Your task to perform on an android device: turn on sleep mode Image 0: 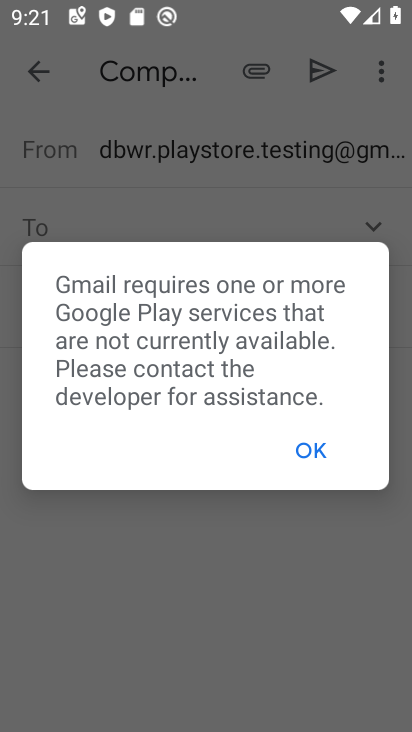
Step 0: press home button
Your task to perform on an android device: turn on sleep mode Image 1: 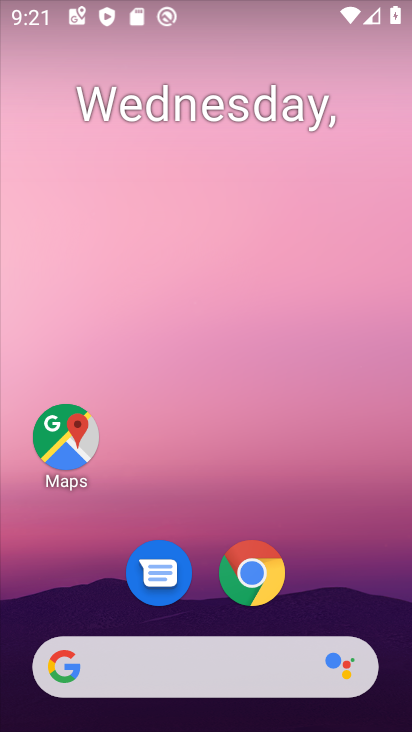
Step 1: drag from (364, 618) to (372, 239)
Your task to perform on an android device: turn on sleep mode Image 2: 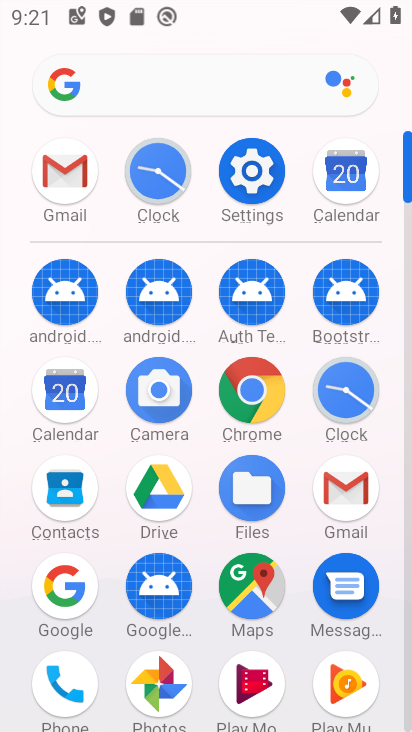
Step 2: click (243, 162)
Your task to perform on an android device: turn on sleep mode Image 3: 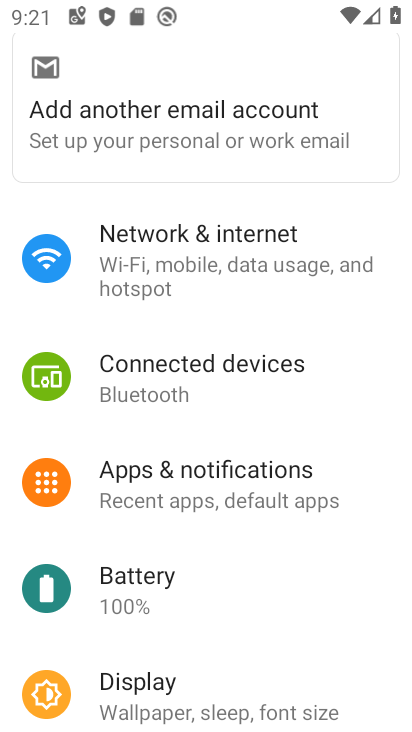
Step 3: click (178, 699)
Your task to perform on an android device: turn on sleep mode Image 4: 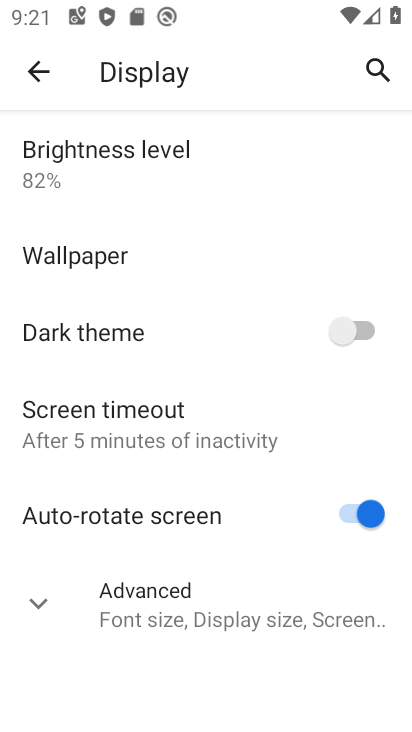
Step 4: click (154, 416)
Your task to perform on an android device: turn on sleep mode Image 5: 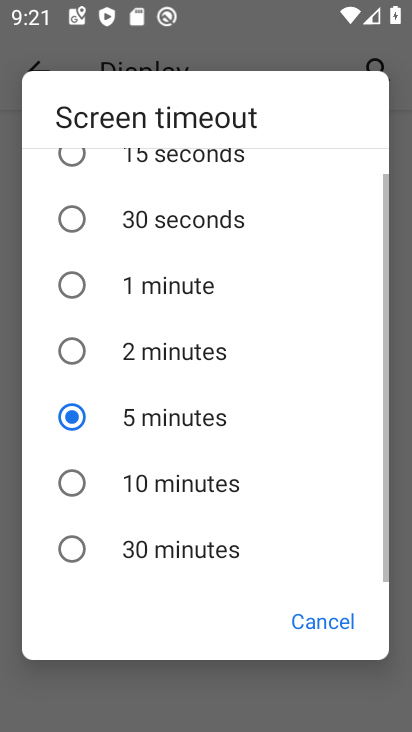
Step 5: task complete